Your task to perform on an android device: Open the map Image 0: 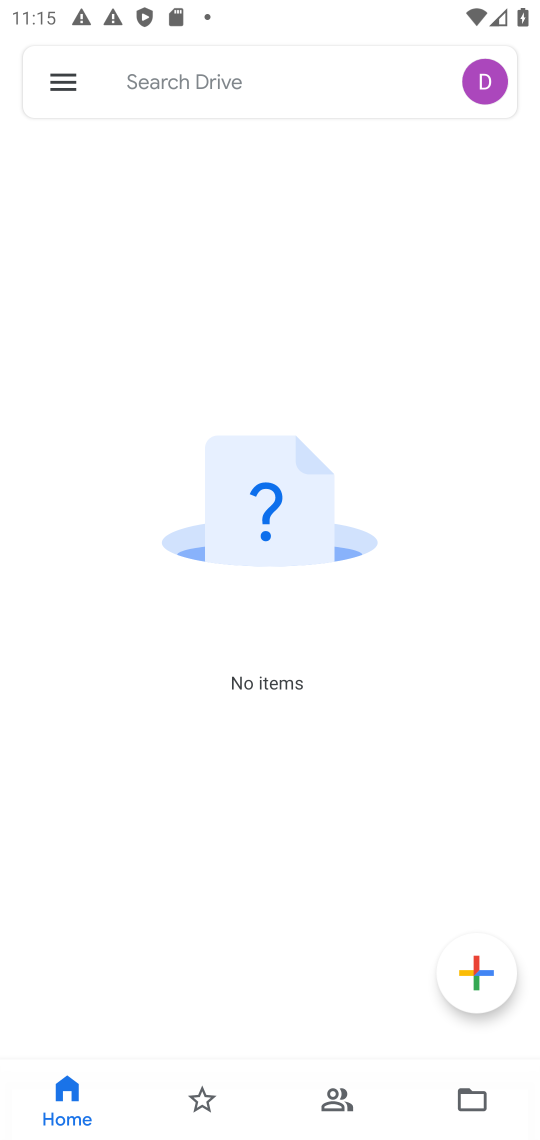
Step 0: press back button
Your task to perform on an android device: Open the map Image 1: 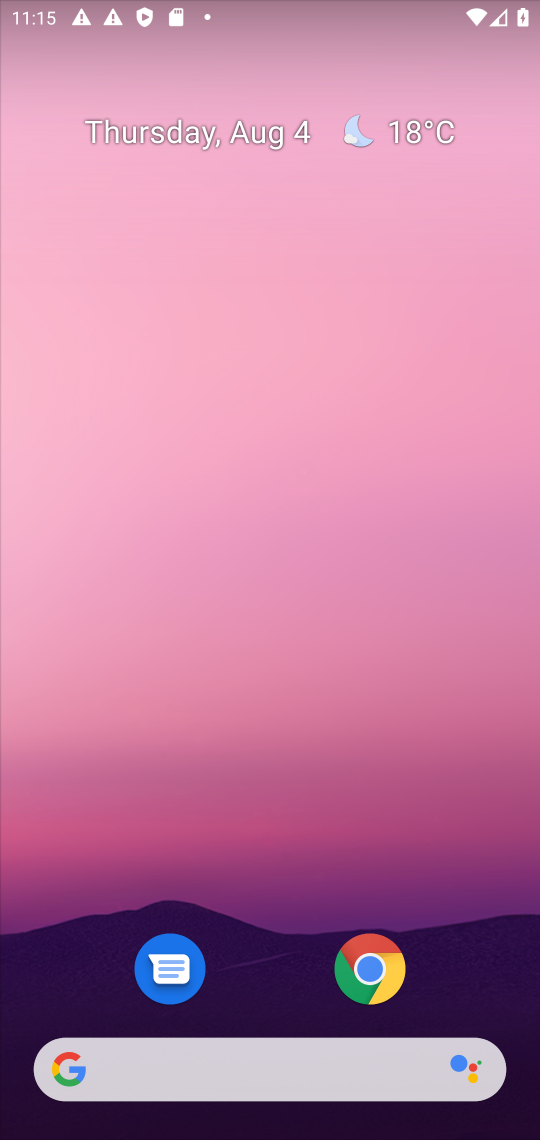
Step 1: drag from (206, 1044) to (188, 135)
Your task to perform on an android device: Open the map Image 2: 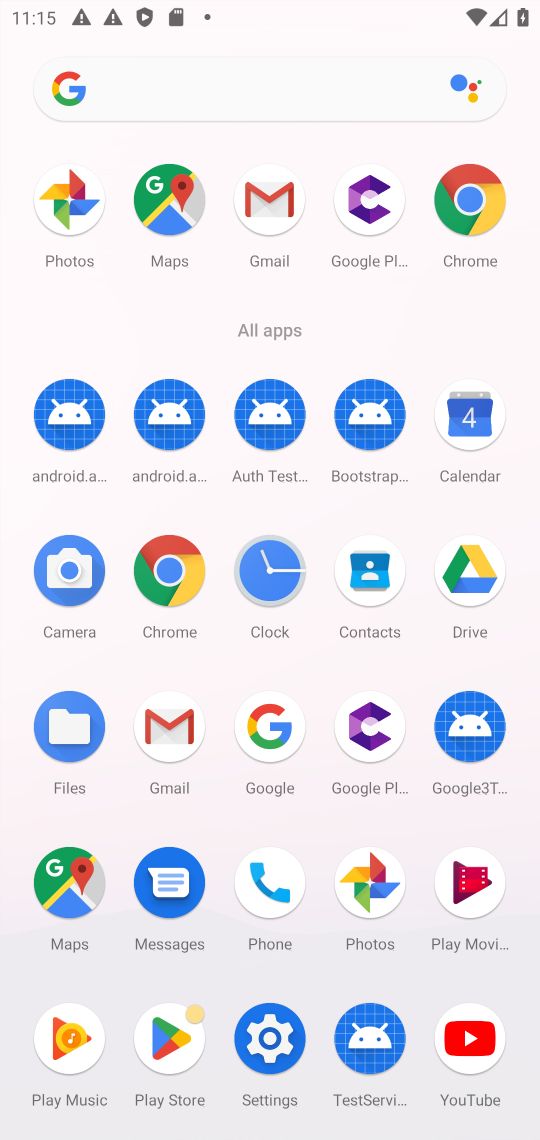
Step 2: click (183, 195)
Your task to perform on an android device: Open the map Image 3: 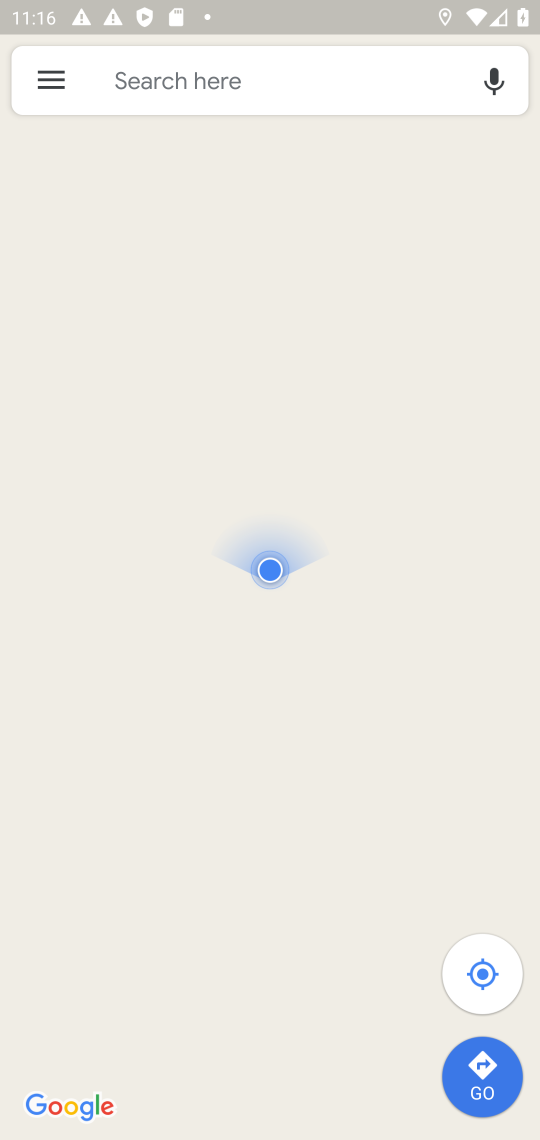
Step 3: task complete